Your task to perform on an android device: Search for vegetarian restaurants on Maps Image 0: 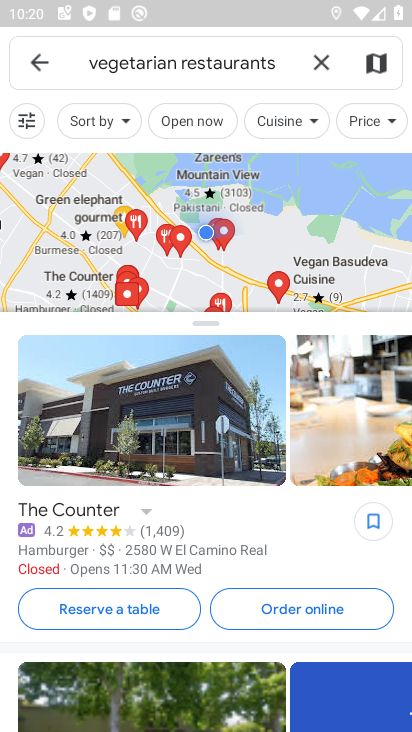
Step 0: task complete